Your task to perform on an android device: Set the phone to "Do not disturb". Image 0: 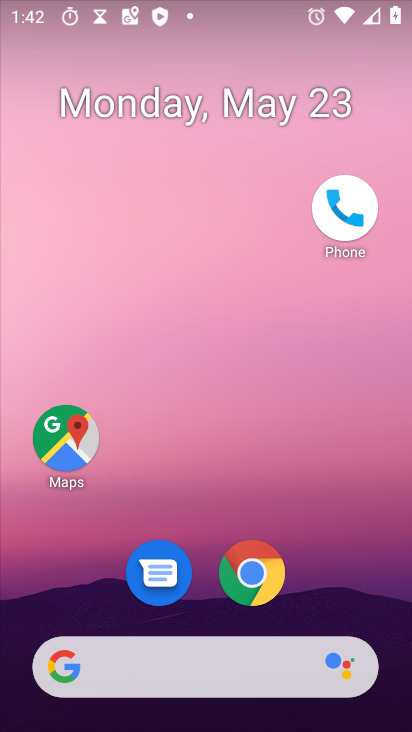
Step 0: drag from (123, 674) to (287, 110)
Your task to perform on an android device: Set the phone to "Do not disturb". Image 1: 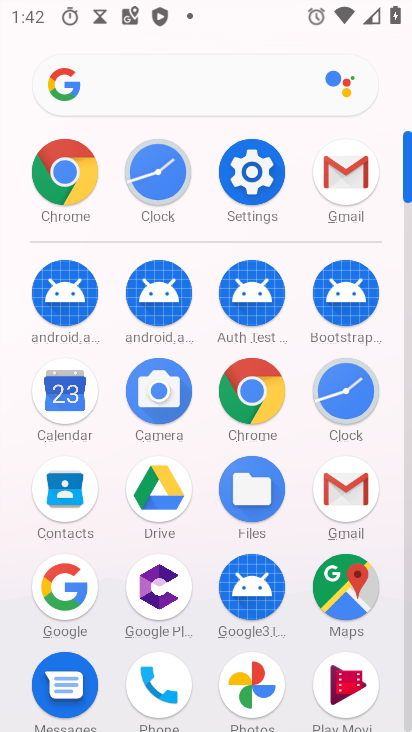
Step 1: click (257, 179)
Your task to perform on an android device: Set the phone to "Do not disturb". Image 2: 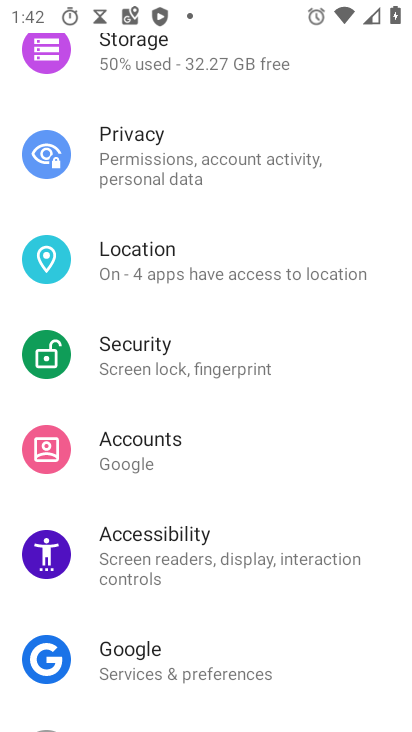
Step 2: drag from (231, 510) to (320, 140)
Your task to perform on an android device: Set the phone to "Do not disturb". Image 3: 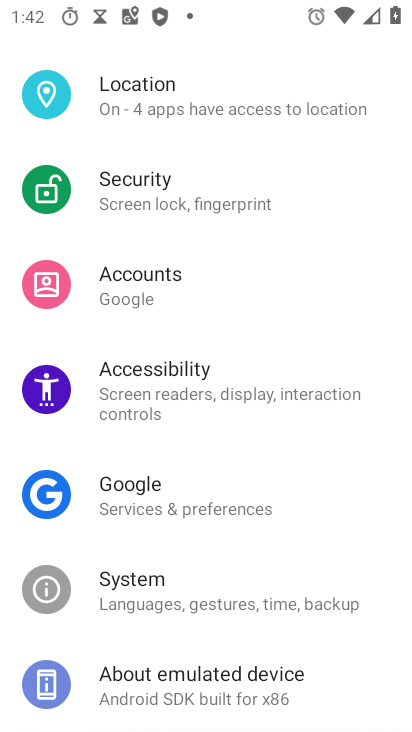
Step 3: drag from (320, 140) to (217, 564)
Your task to perform on an android device: Set the phone to "Do not disturb". Image 4: 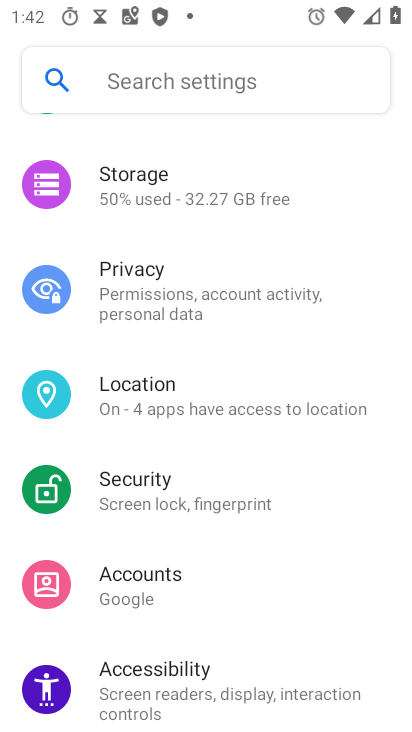
Step 4: drag from (296, 248) to (234, 612)
Your task to perform on an android device: Set the phone to "Do not disturb". Image 5: 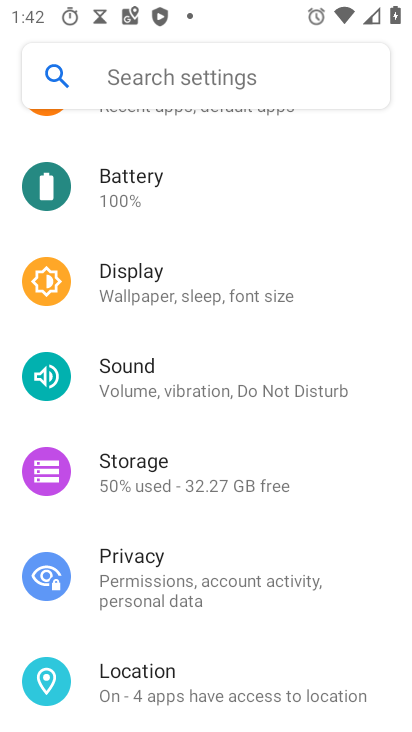
Step 5: click (176, 400)
Your task to perform on an android device: Set the phone to "Do not disturb". Image 6: 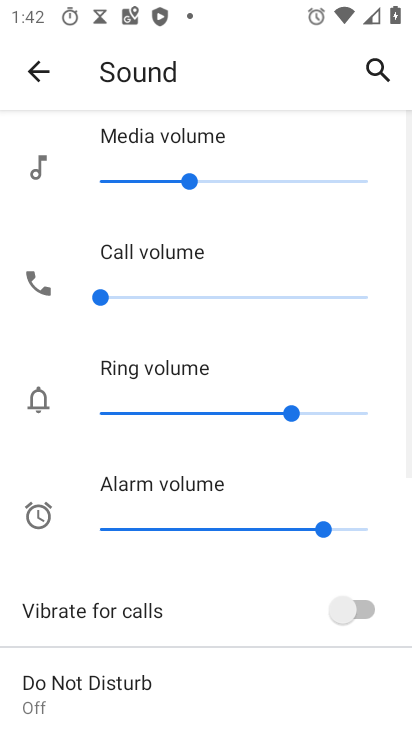
Step 6: drag from (175, 616) to (295, 220)
Your task to perform on an android device: Set the phone to "Do not disturb". Image 7: 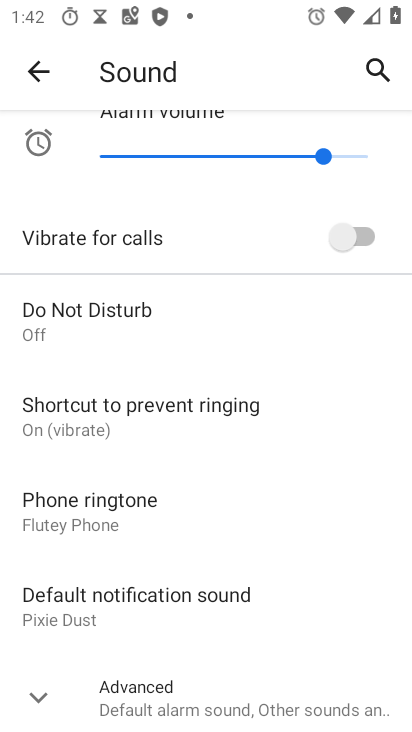
Step 7: click (102, 342)
Your task to perform on an android device: Set the phone to "Do not disturb". Image 8: 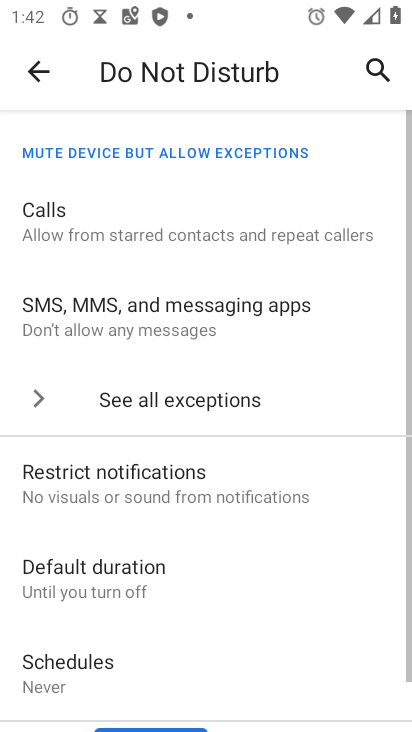
Step 8: drag from (115, 641) to (256, 239)
Your task to perform on an android device: Set the phone to "Do not disturb". Image 9: 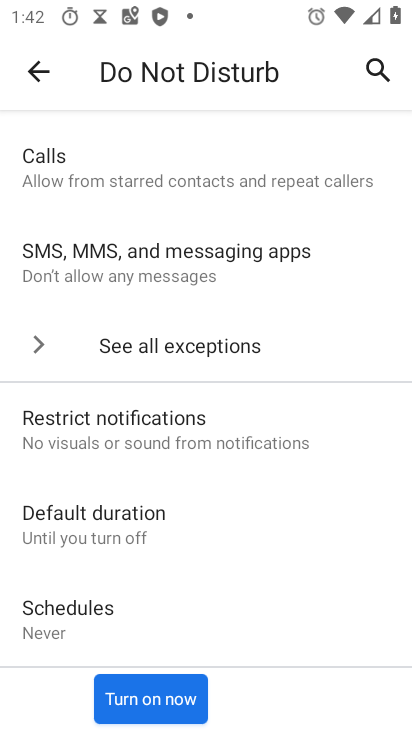
Step 9: click (138, 694)
Your task to perform on an android device: Set the phone to "Do not disturb". Image 10: 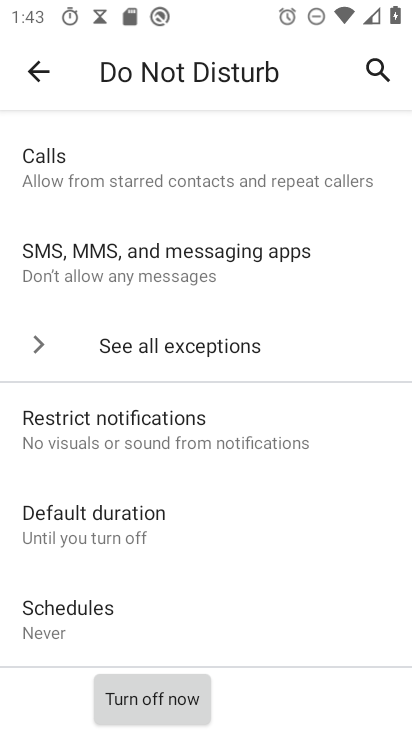
Step 10: task complete